Your task to perform on an android device: turn off sleep mode Image 0: 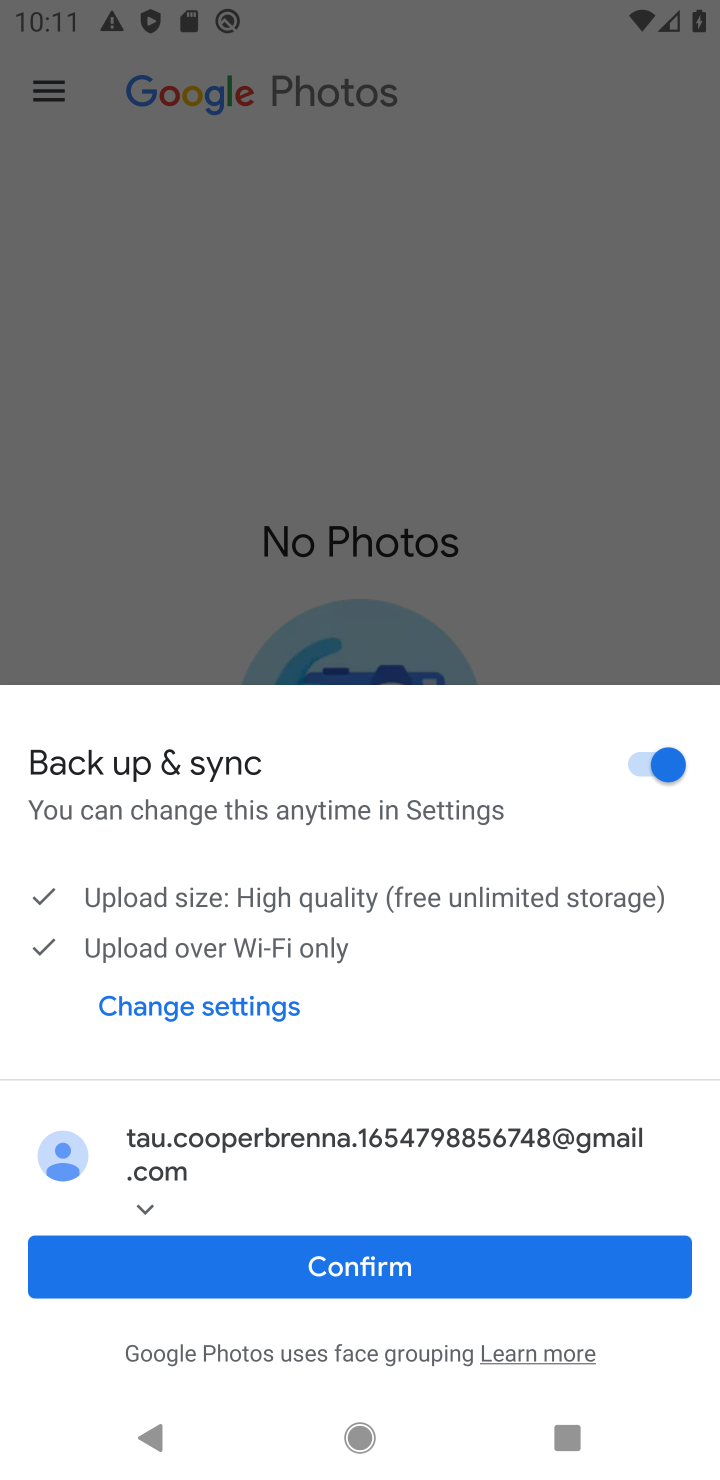
Step 0: press home button
Your task to perform on an android device: turn off sleep mode Image 1: 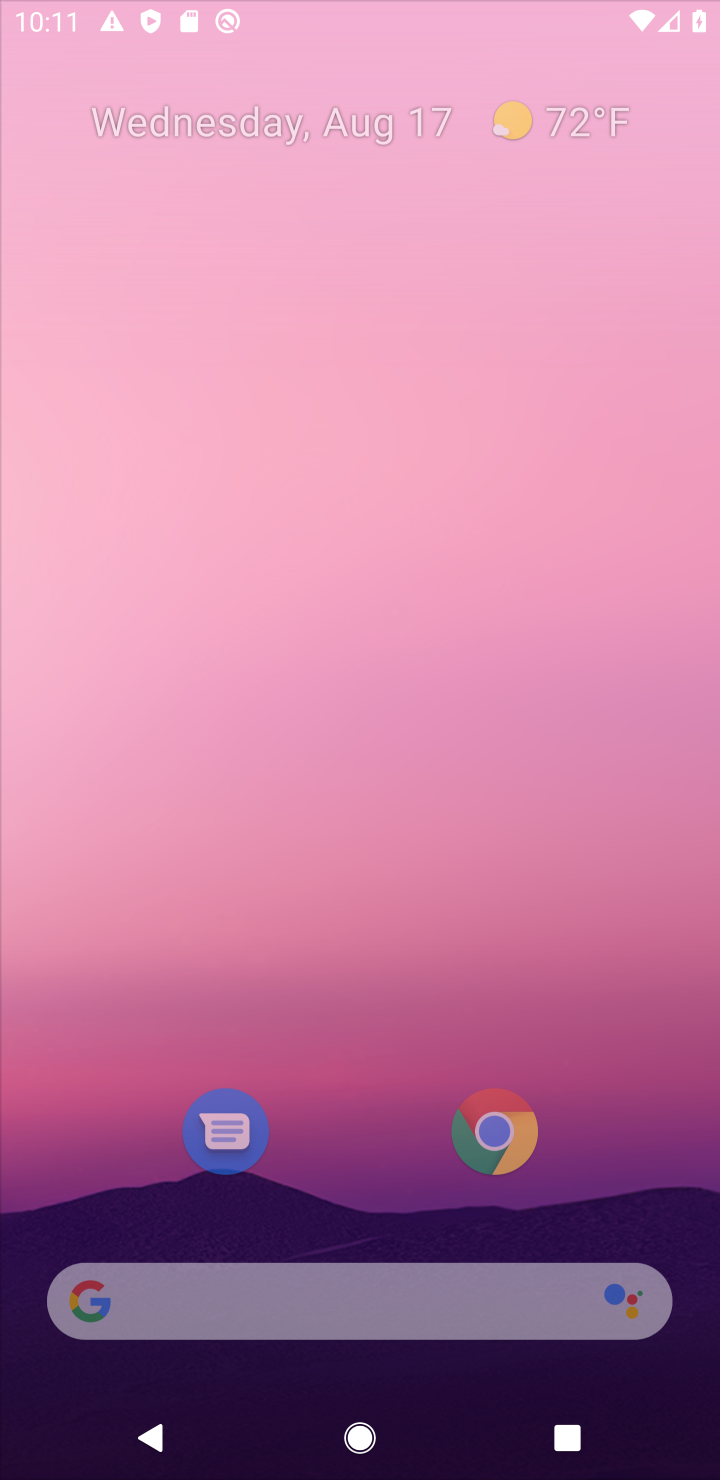
Step 1: task complete